Your task to perform on an android device: change the clock display to show seconds Image 0: 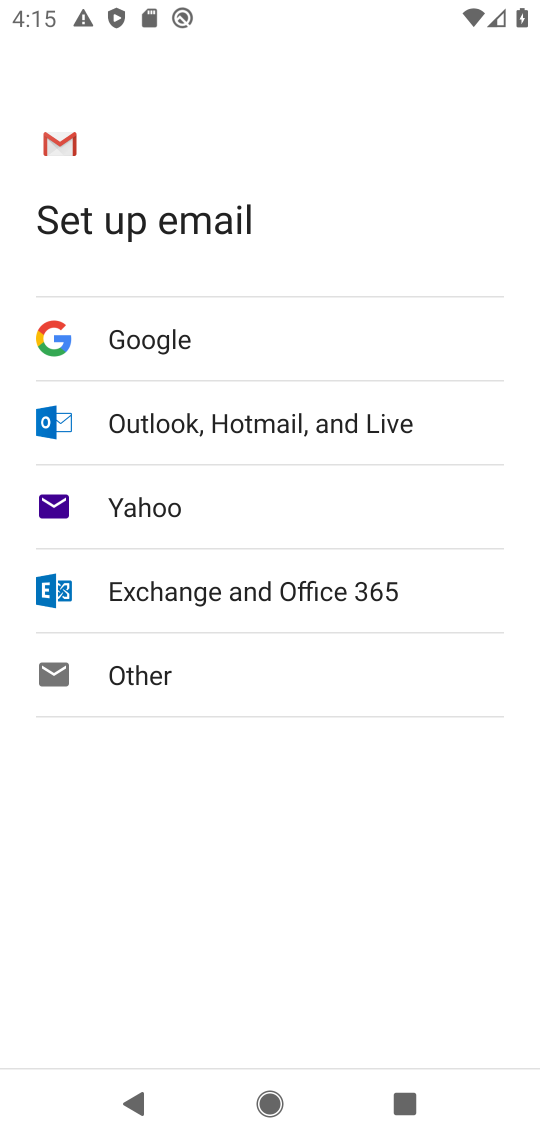
Step 0: press home button
Your task to perform on an android device: change the clock display to show seconds Image 1: 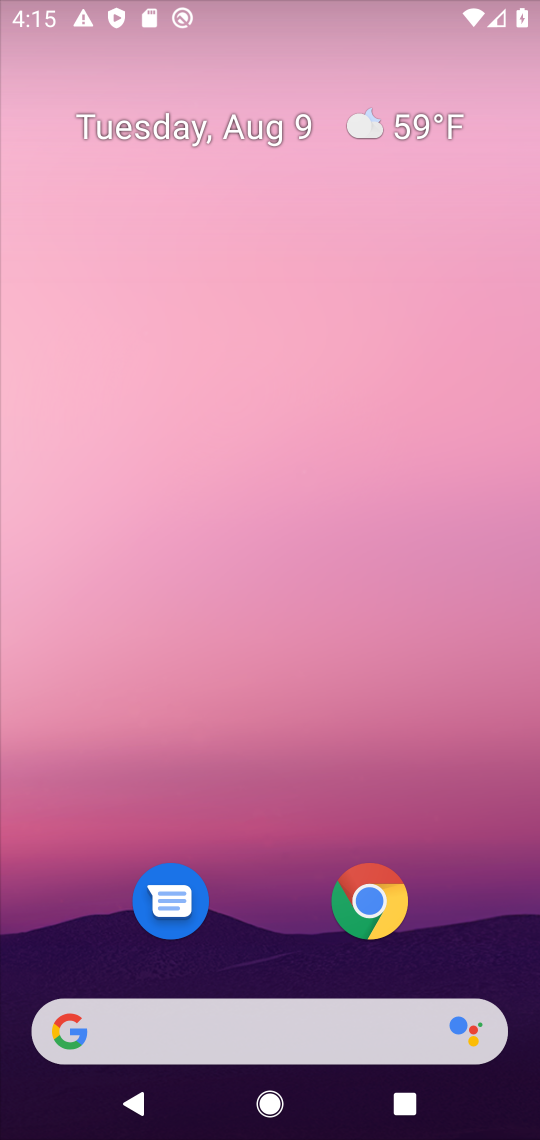
Step 1: drag from (300, 938) to (538, 351)
Your task to perform on an android device: change the clock display to show seconds Image 2: 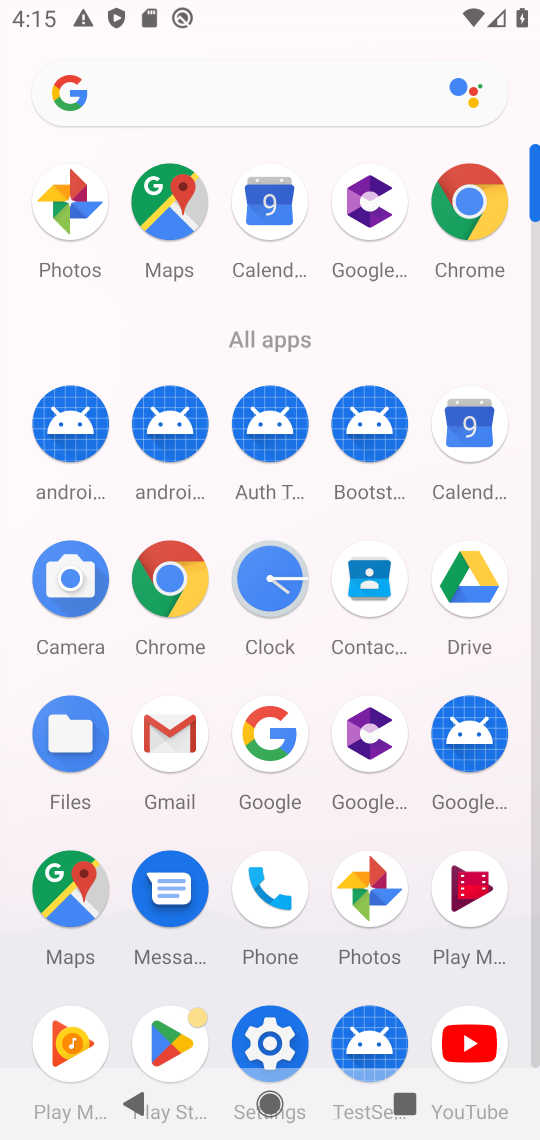
Step 2: click (296, 597)
Your task to perform on an android device: change the clock display to show seconds Image 3: 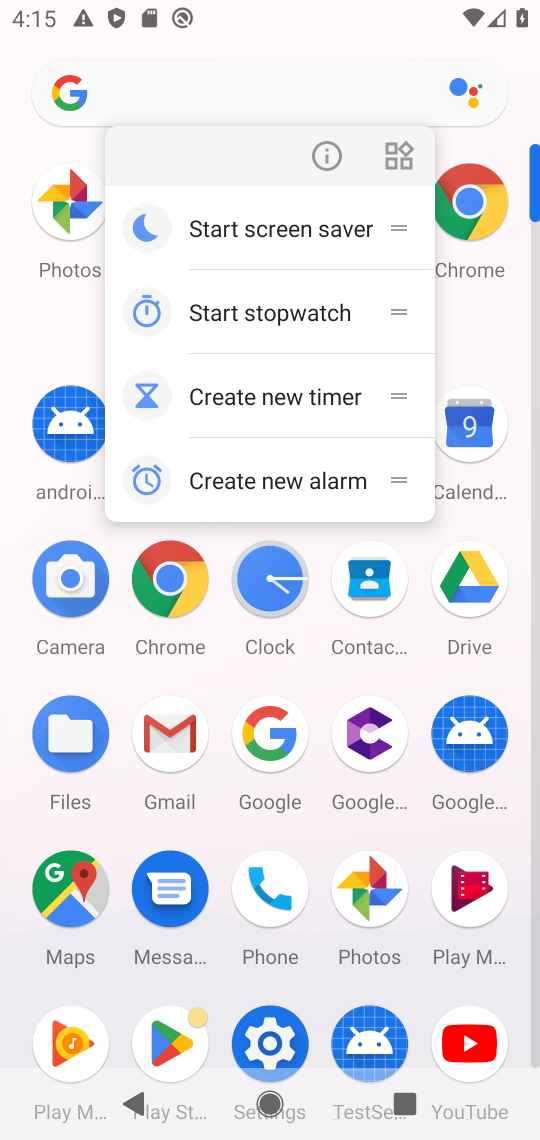
Step 3: click (264, 576)
Your task to perform on an android device: change the clock display to show seconds Image 4: 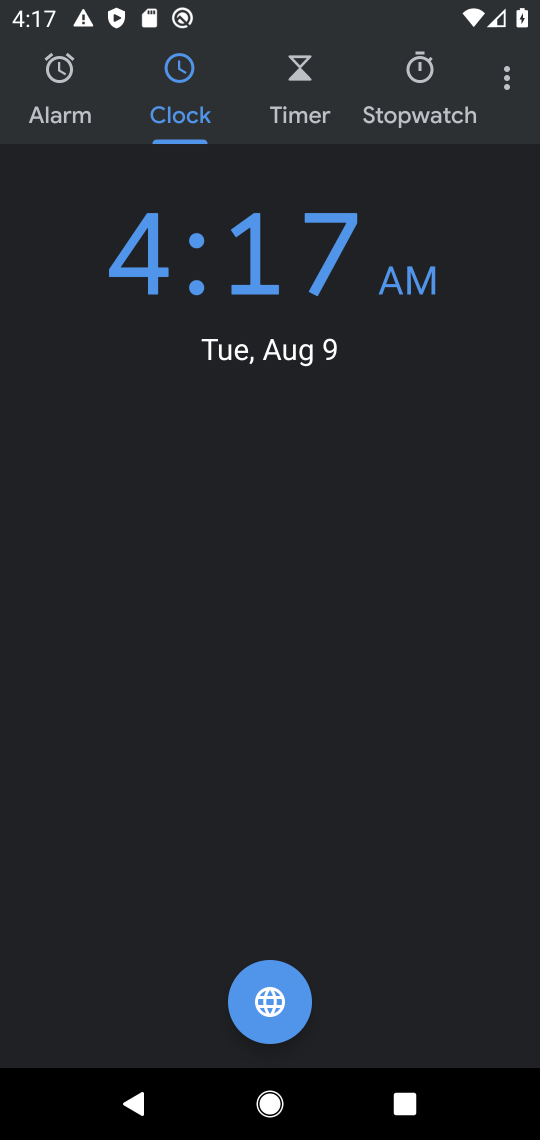
Step 4: click (508, 93)
Your task to perform on an android device: change the clock display to show seconds Image 5: 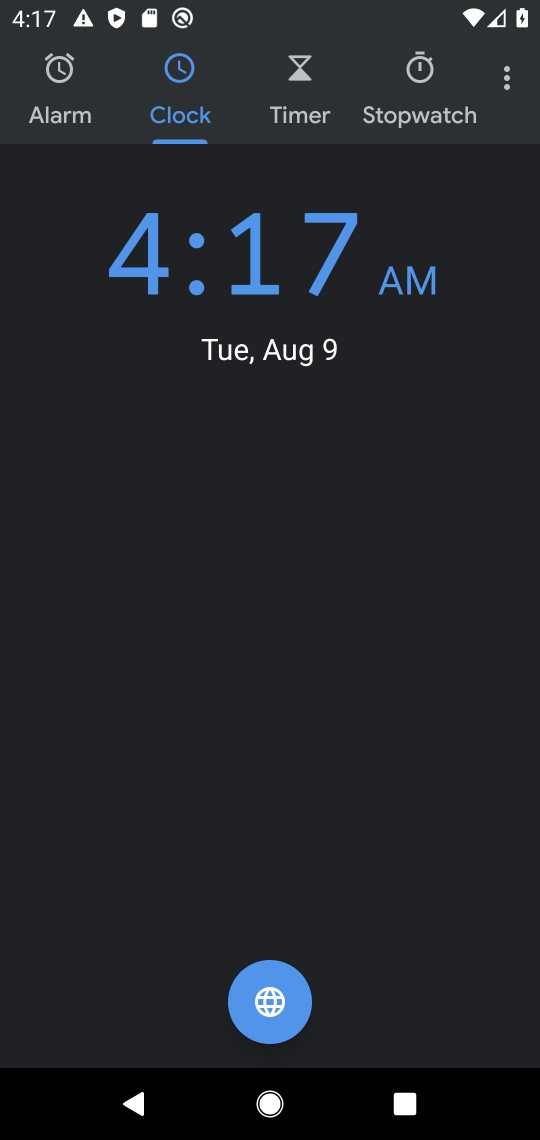
Step 5: click (505, 96)
Your task to perform on an android device: change the clock display to show seconds Image 6: 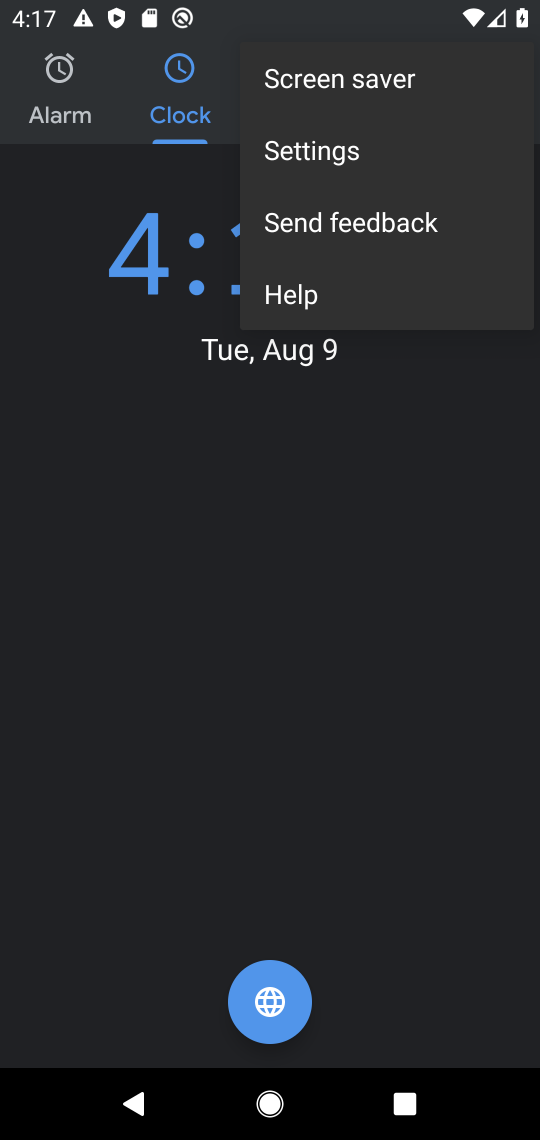
Step 6: click (309, 158)
Your task to perform on an android device: change the clock display to show seconds Image 7: 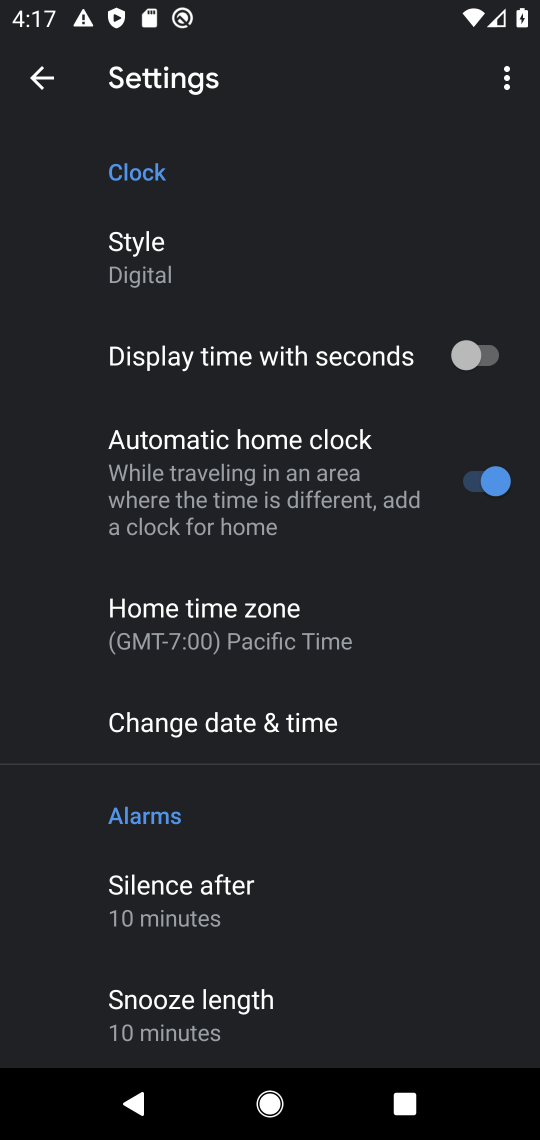
Step 7: click (270, 368)
Your task to perform on an android device: change the clock display to show seconds Image 8: 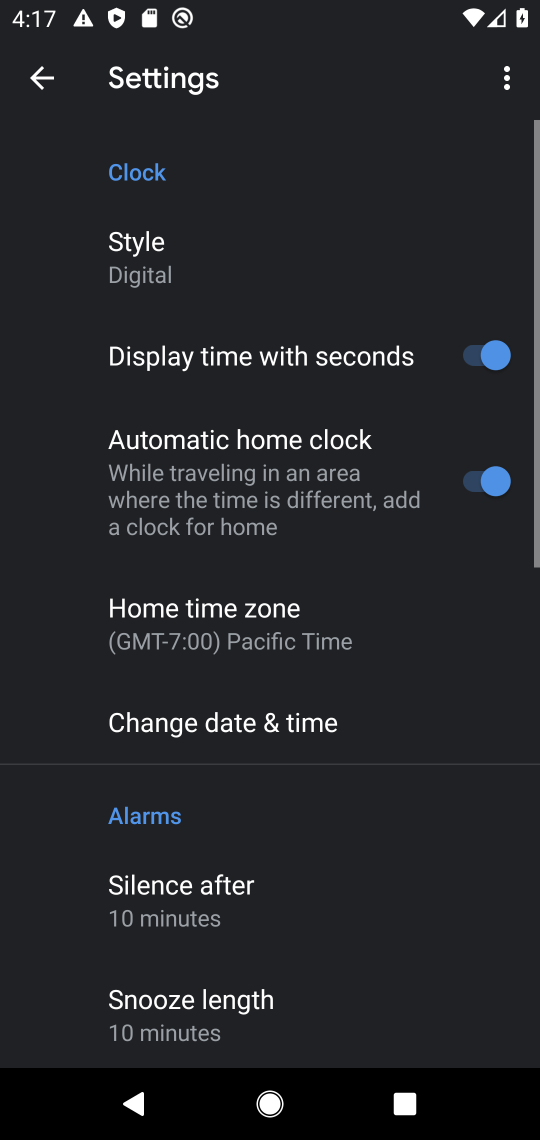
Step 8: task complete